Your task to perform on an android device: Go to Reddit.com Image 0: 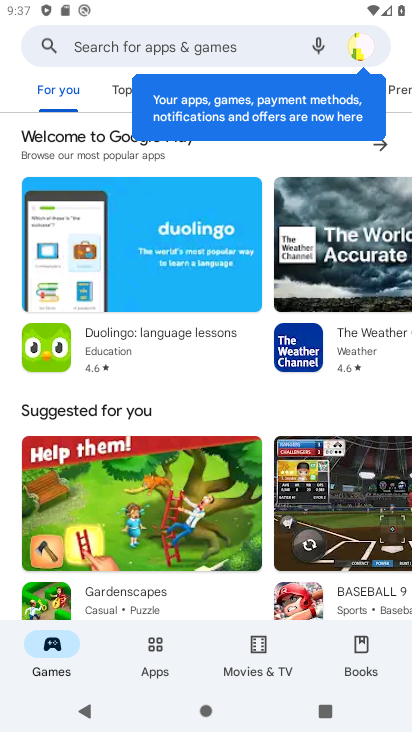
Step 0: press home button
Your task to perform on an android device: Go to Reddit.com Image 1: 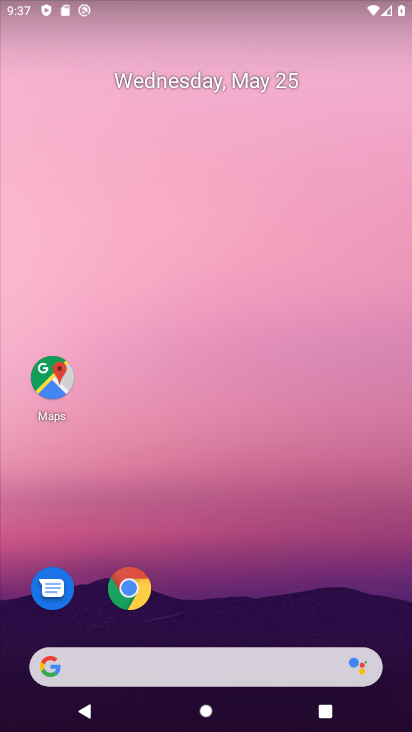
Step 1: click (139, 592)
Your task to perform on an android device: Go to Reddit.com Image 2: 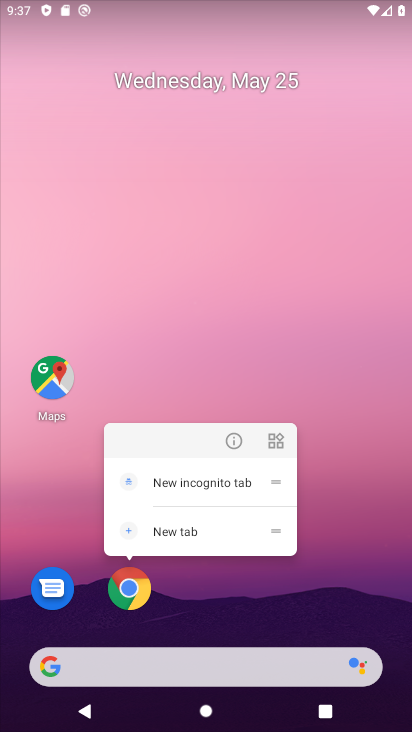
Step 2: click (134, 586)
Your task to perform on an android device: Go to Reddit.com Image 3: 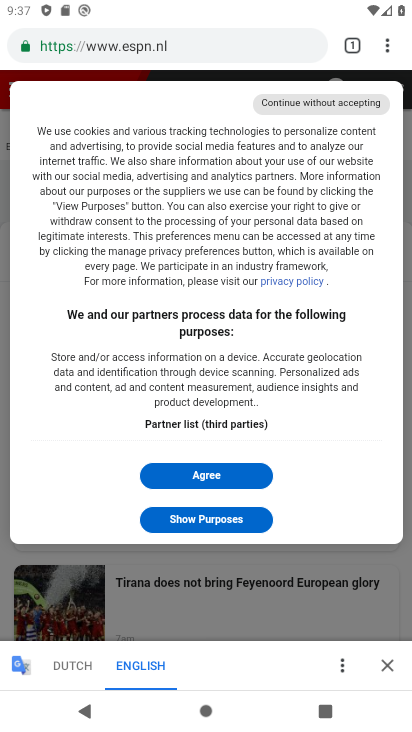
Step 3: click (173, 37)
Your task to perform on an android device: Go to Reddit.com Image 4: 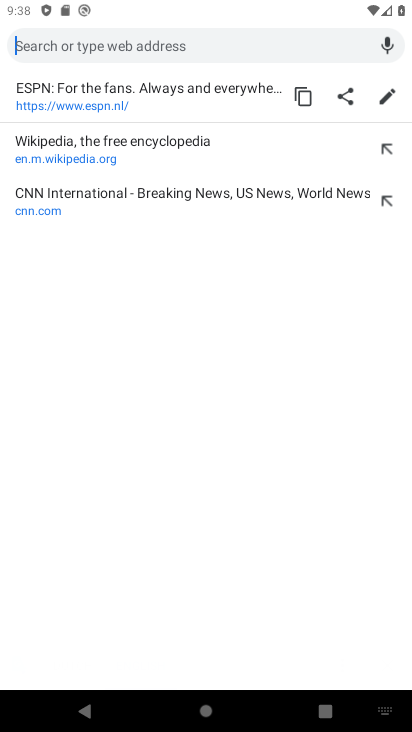
Step 4: type "reddit.com"
Your task to perform on an android device: Go to Reddit.com Image 5: 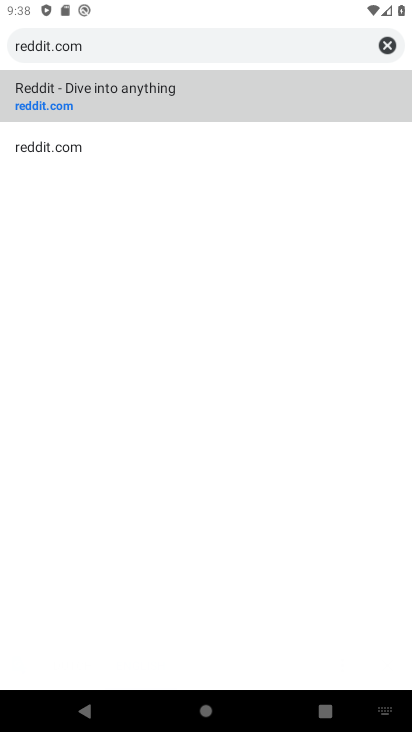
Step 5: click (76, 110)
Your task to perform on an android device: Go to Reddit.com Image 6: 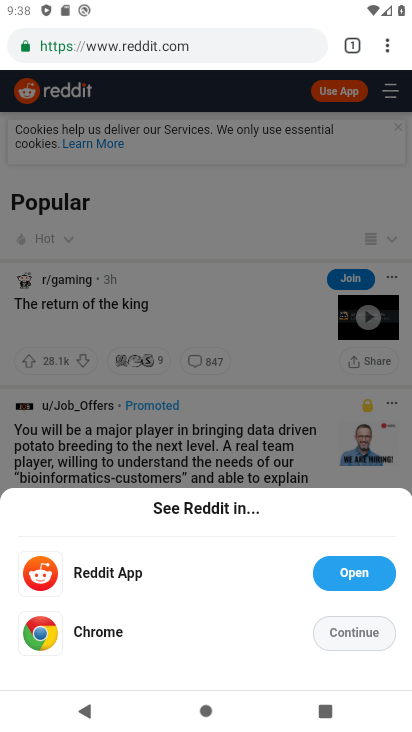
Step 6: task complete